Your task to perform on an android device: Do I have any events tomorrow? Image 0: 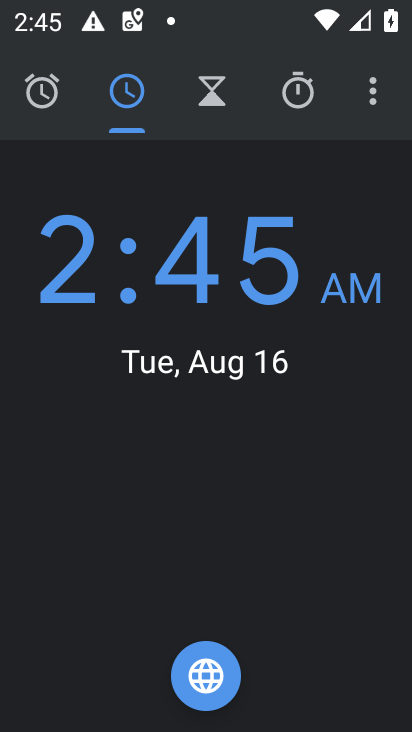
Step 0: press home button
Your task to perform on an android device: Do I have any events tomorrow? Image 1: 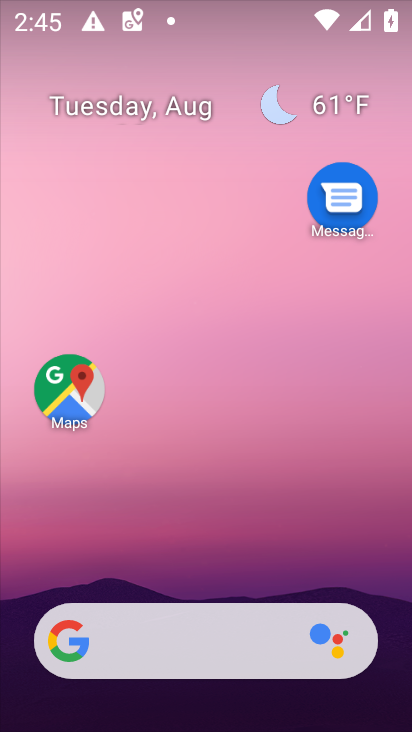
Step 1: drag from (229, 582) to (209, 12)
Your task to perform on an android device: Do I have any events tomorrow? Image 2: 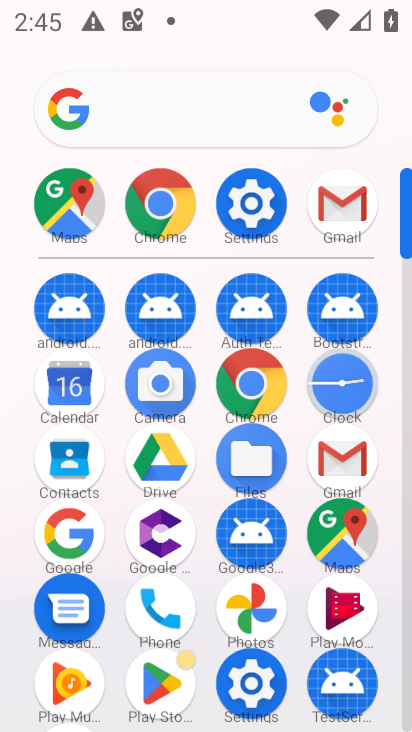
Step 2: click (58, 389)
Your task to perform on an android device: Do I have any events tomorrow? Image 3: 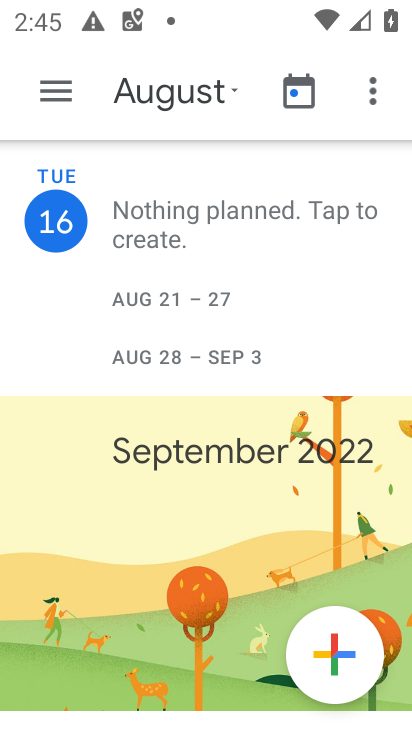
Step 3: click (292, 106)
Your task to perform on an android device: Do I have any events tomorrow? Image 4: 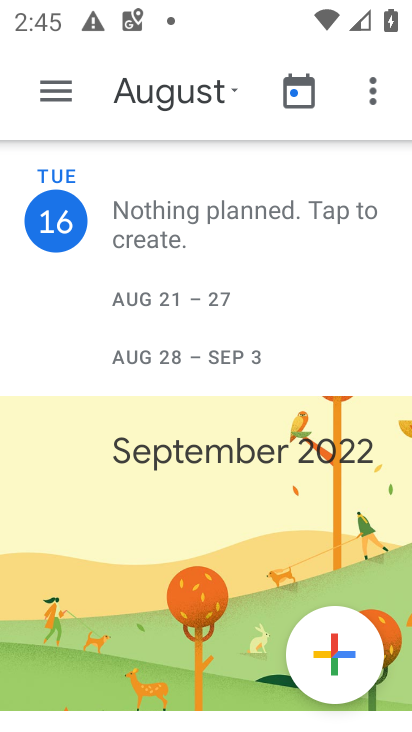
Step 4: task complete